Your task to perform on an android device: Search for lg ultragear on ebay.com, select the first entry, add it to the cart, then select checkout. Image 0: 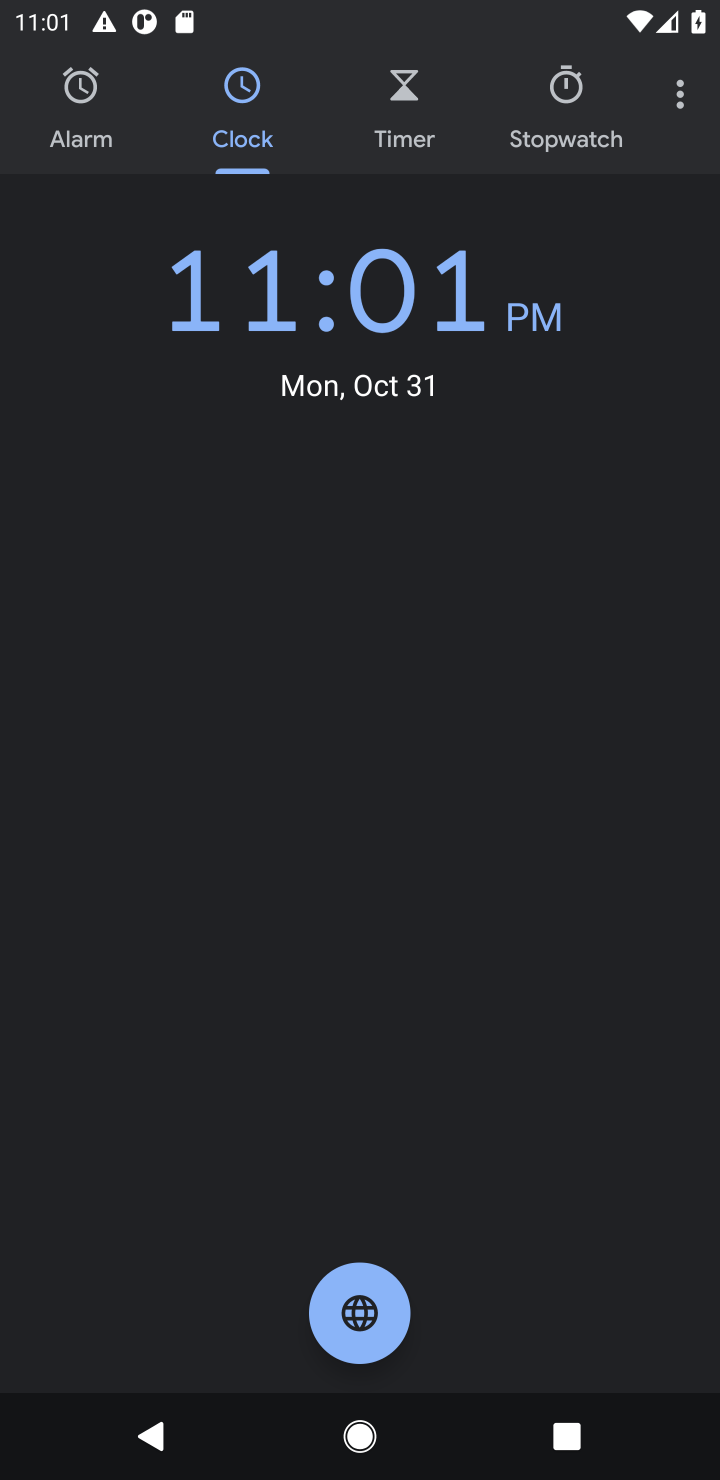
Step 0: press home button
Your task to perform on an android device: Search for lg ultragear on ebay.com, select the first entry, add it to the cart, then select checkout. Image 1: 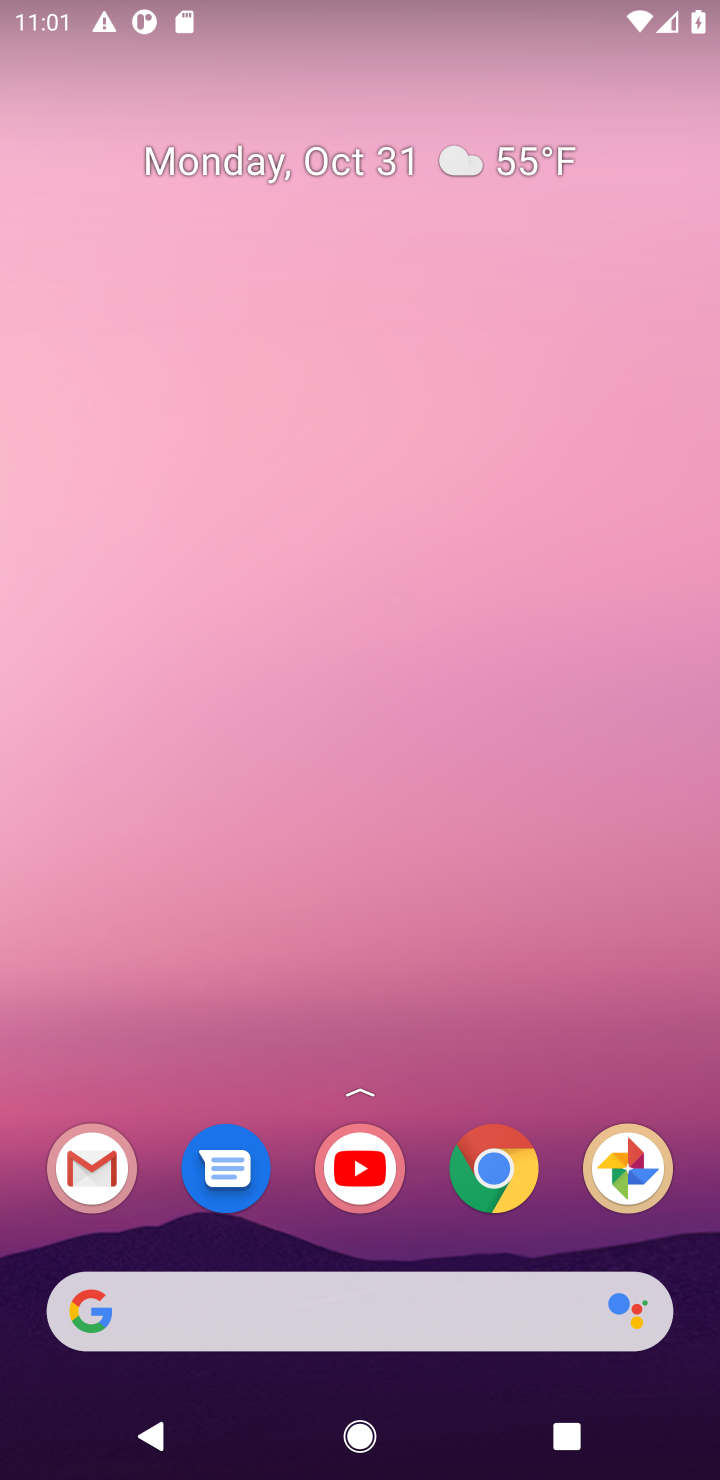
Step 1: click (492, 1190)
Your task to perform on an android device: Search for lg ultragear on ebay.com, select the first entry, add it to the cart, then select checkout. Image 2: 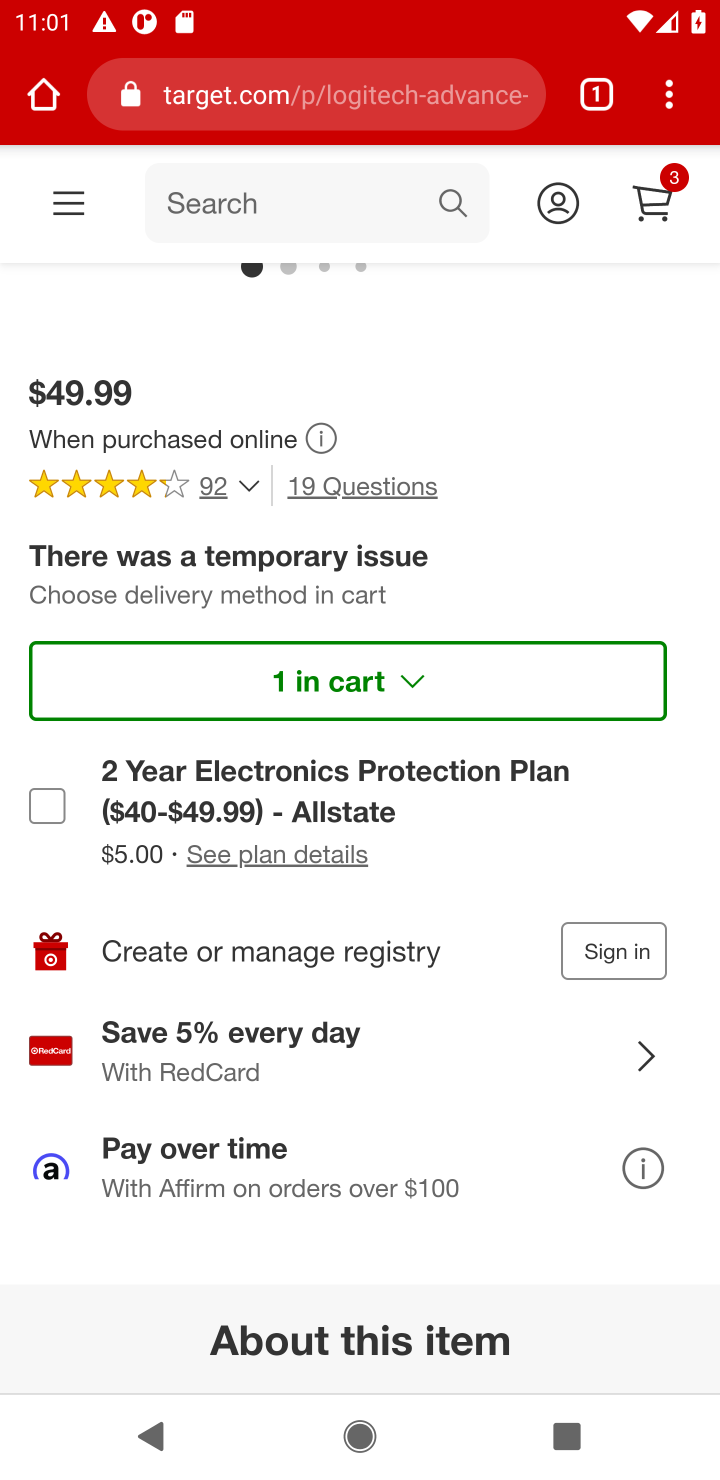
Step 2: click (248, 108)
Your task to perform on an android device: Search for lg ultragear on ebay.com, select the first entry, add it to the cart, then select checkout. Image 3: 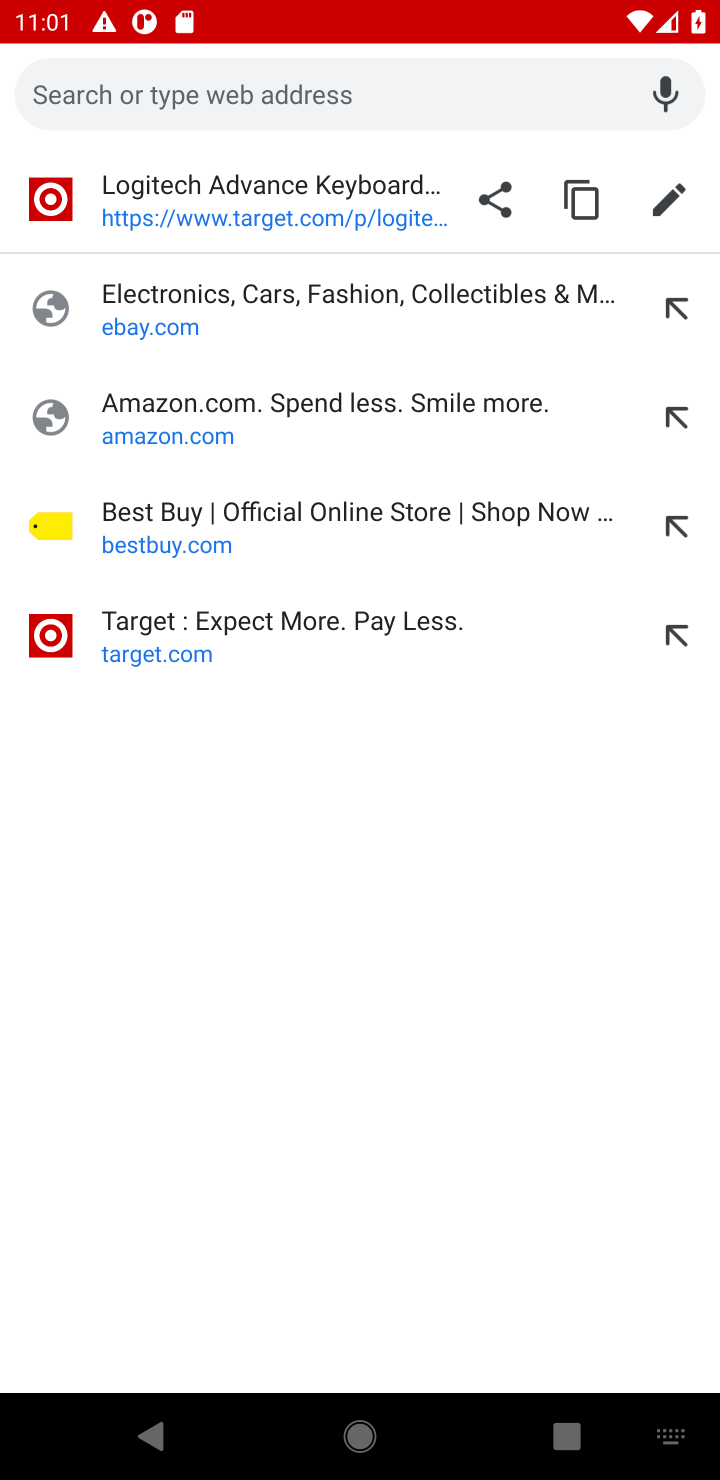
Step 3: type "ebay.com"
Your task to perform on an android device: Search for lg ultragear on ebay.com, select the first entry, add it to the cart, then select checkout. Image 4: 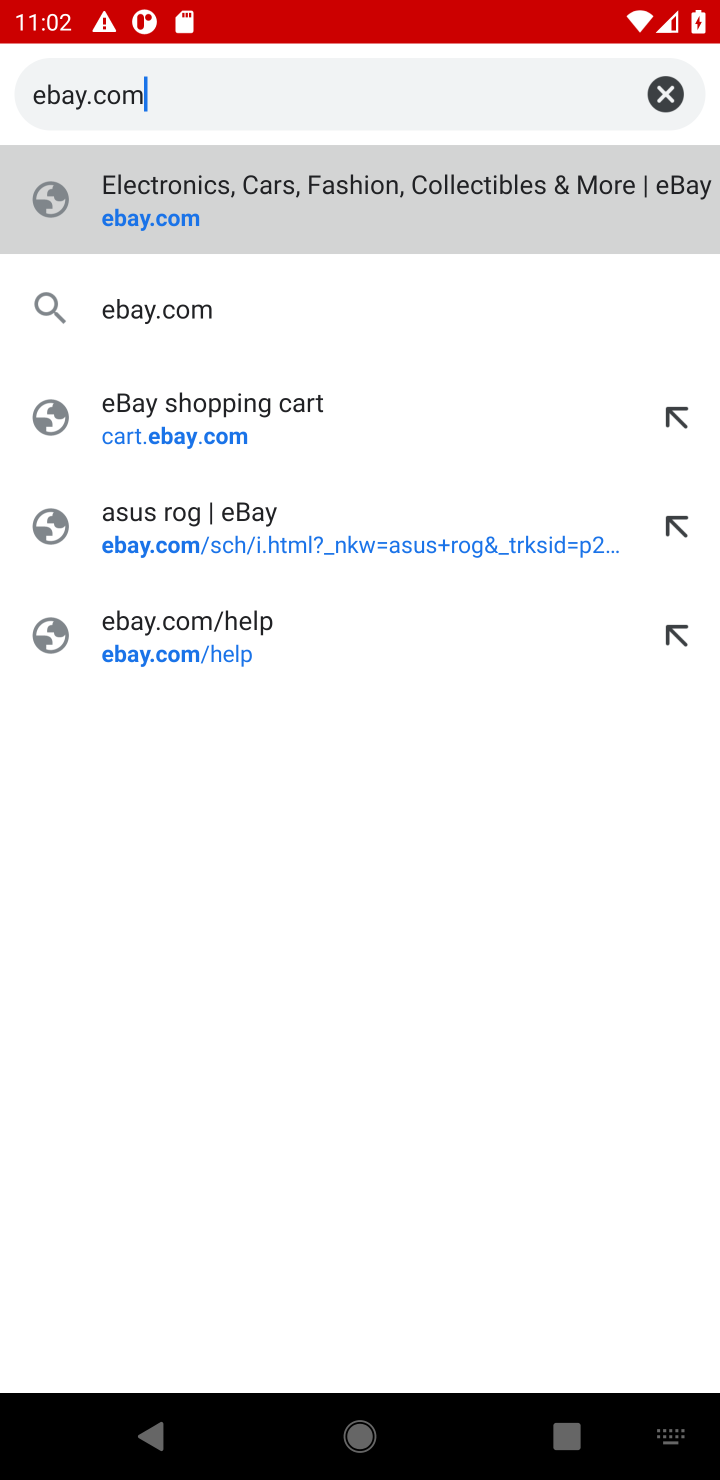
Step 4: click (369, 219)
Your task to perform on an android device: Search for lg ultragear on ebay.com, select the first entry, add it to the cart, then select checkout. Image 5: 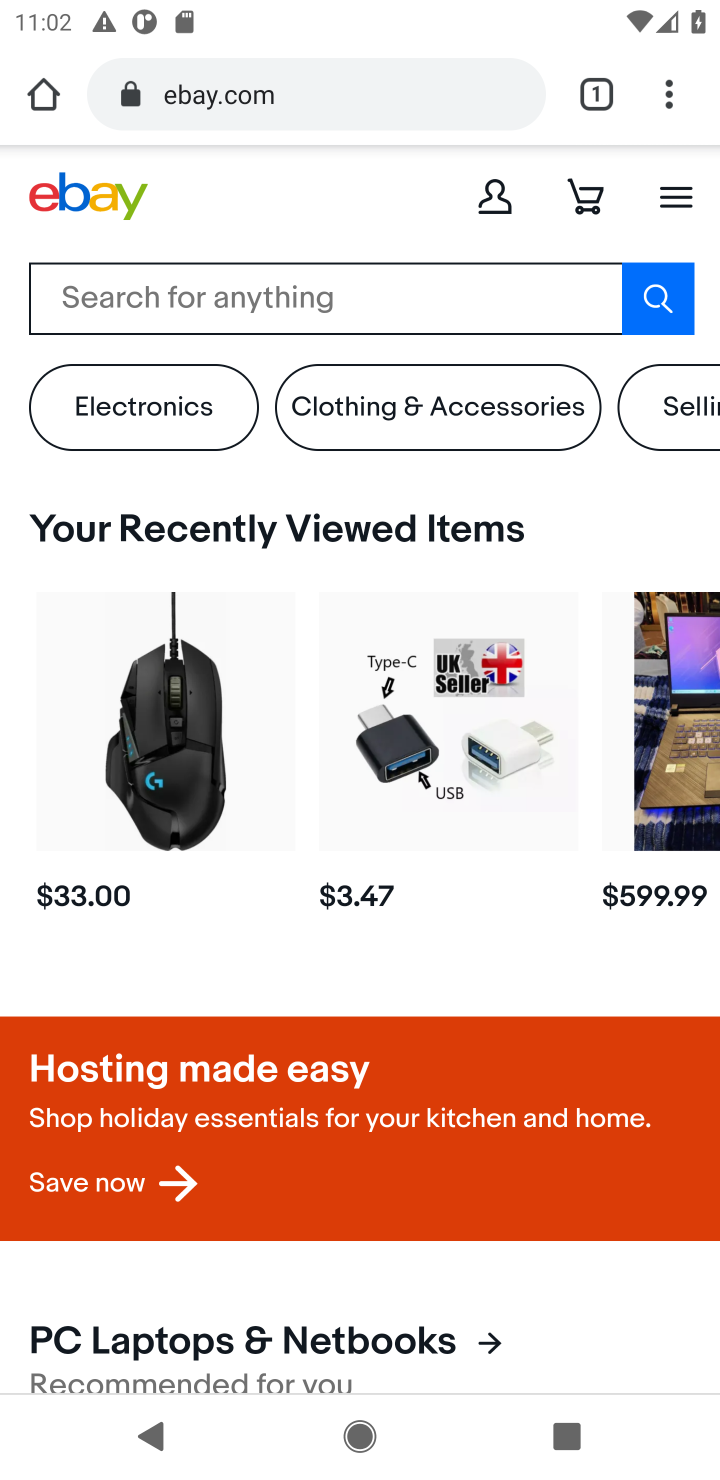
Step 5: drag from (376, 993) to (324, 1079)
Your task to perform on an android device: Search for lg ultragear on ebay.com, select the first entry, add it to the cart, then select checkout. Image 6: 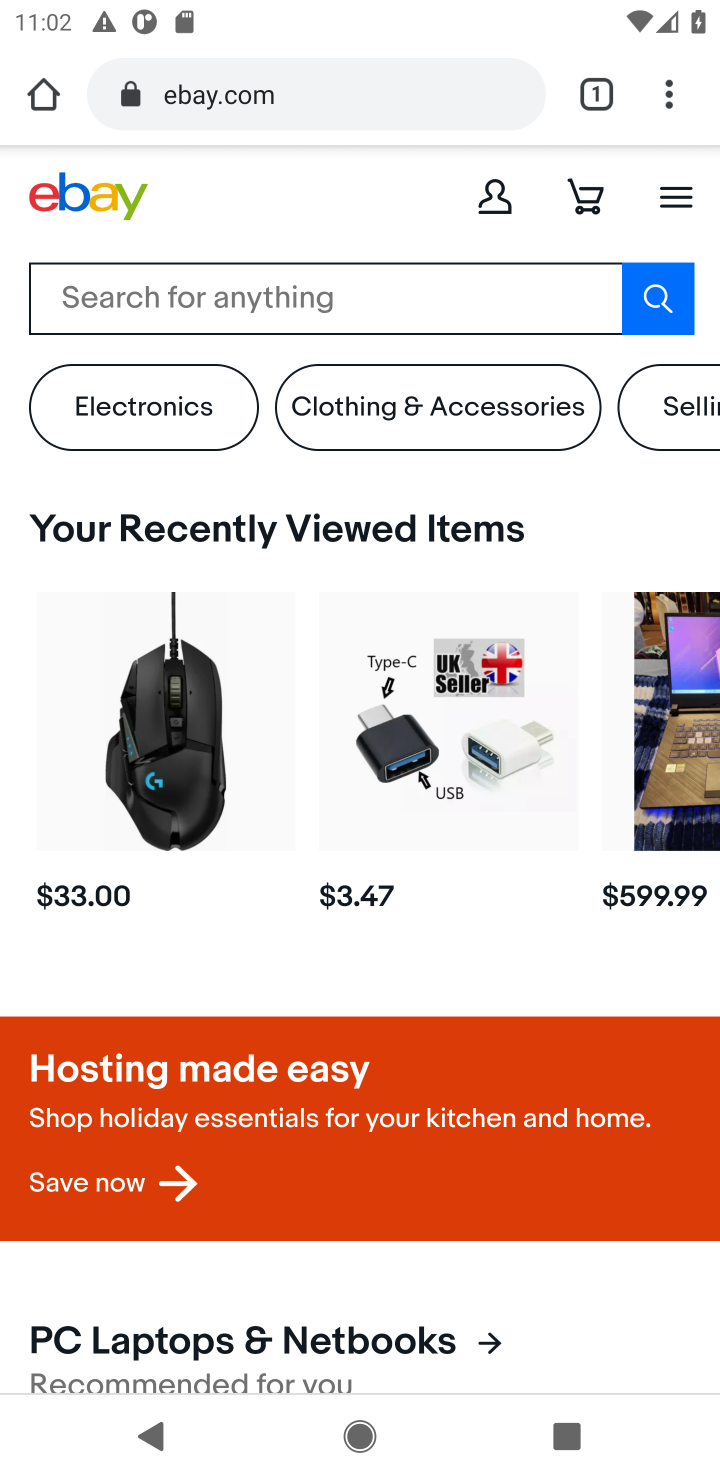
Step 6: click (281, 292)
Your task to perform on an android device: Search for lg ultragear on ebay.com, select the first entry, add it to the cart, then select checkout. Image 7: 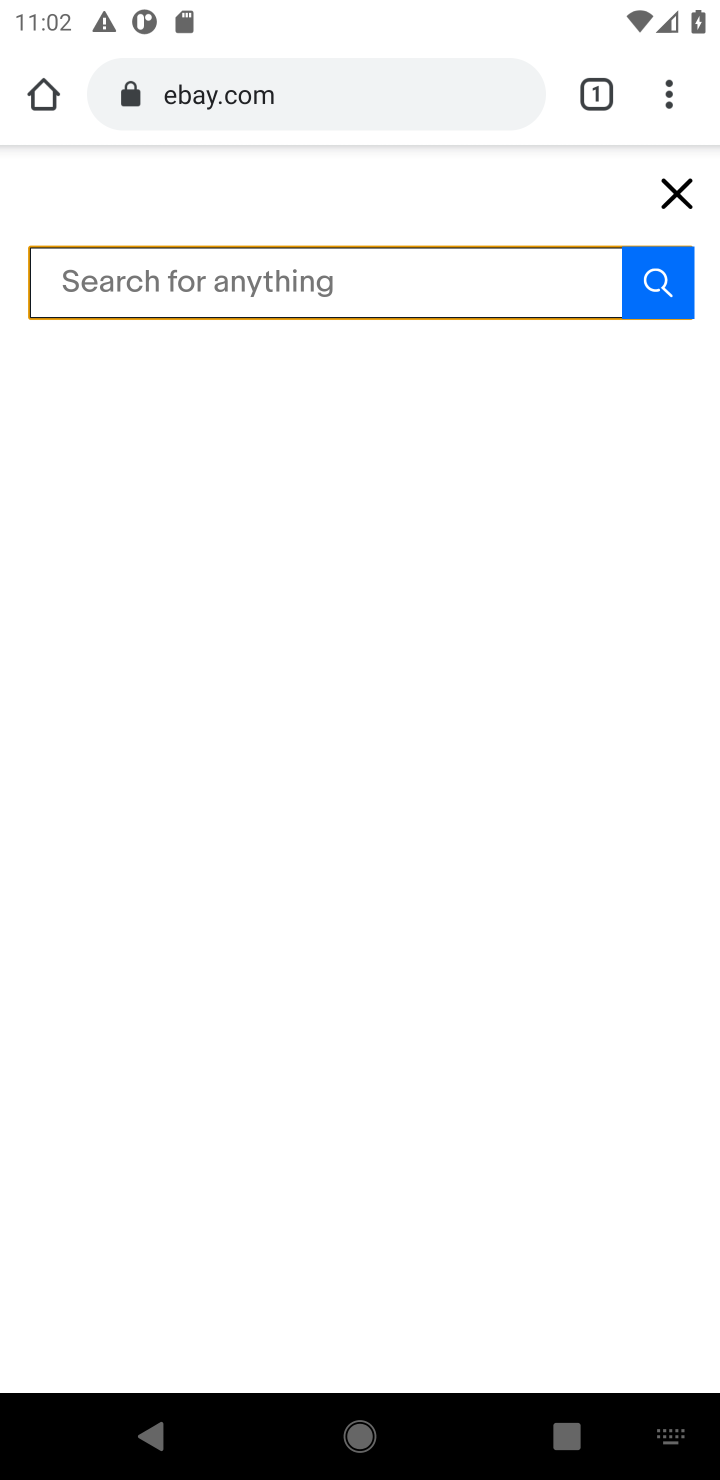
Step 7: type "lg ultragear"
Your task to perform on an android device: Search for lg ultragear on ebay.com, select the first entry, add it to the cart, then select checkout. Image 8: 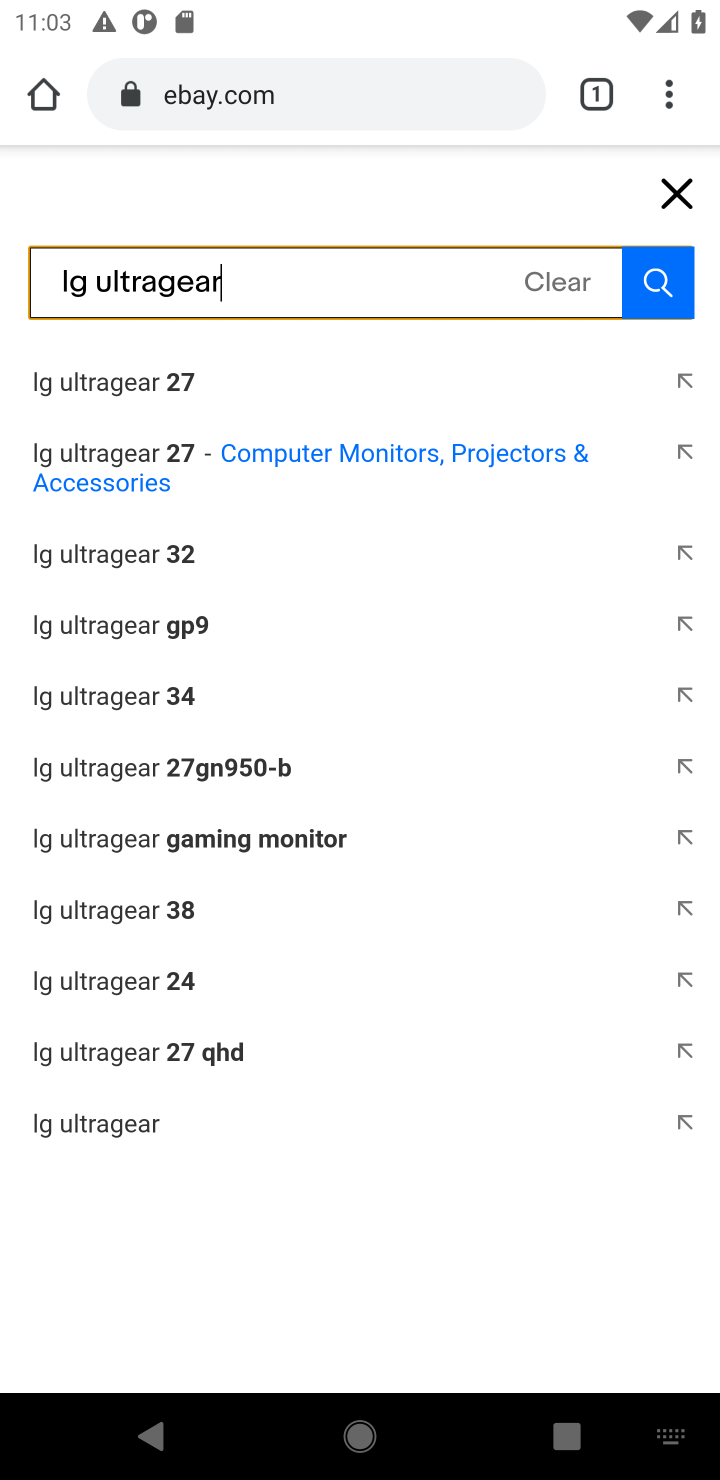
Step 8: click (658, 277)
Your task to perform on an android device: Search for lg ultragear on ebay.com, select the first entry, add it to the cart, then select checkout. Image 9: 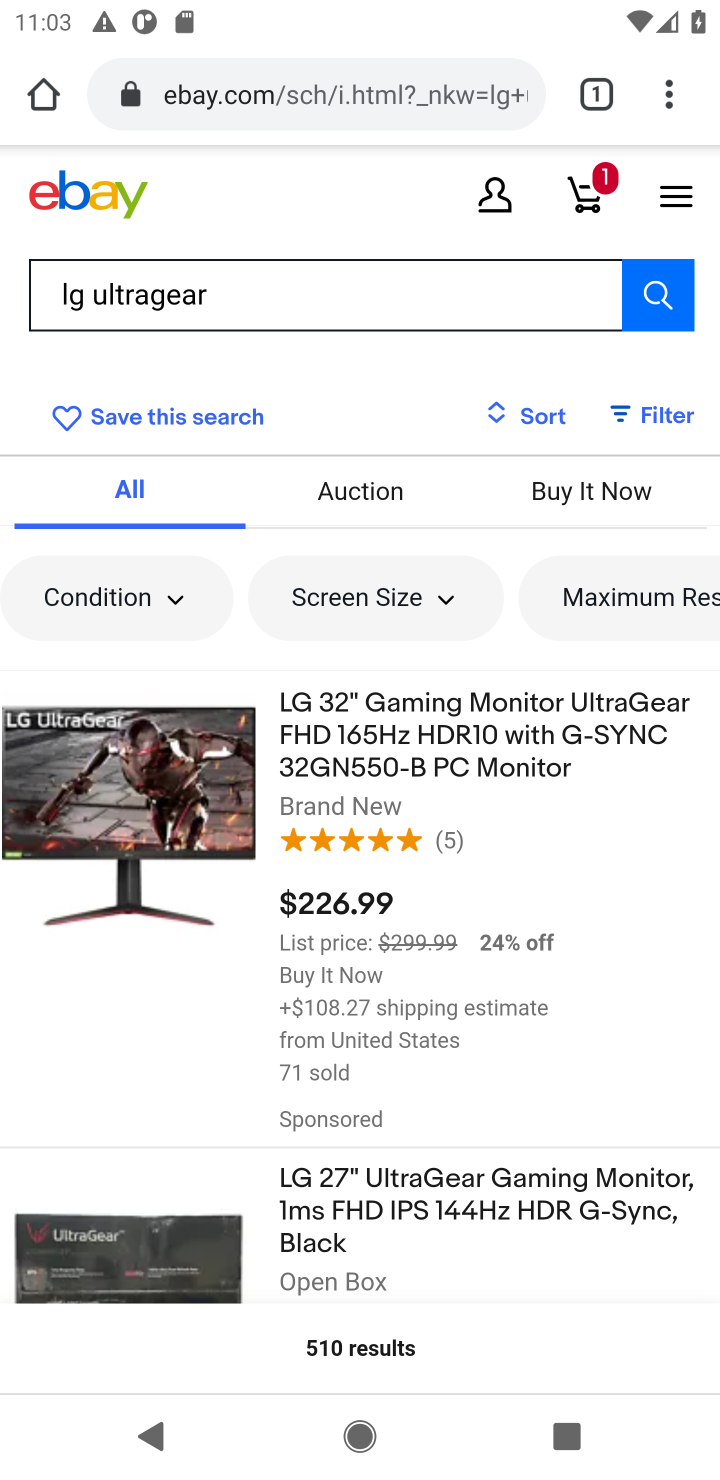
Step 9: click (515, 728)
Your task to perform on an android device: Search for lg ultragear on ebay.com, select the first entry, add it to the cart, then select checkout. Image 10: 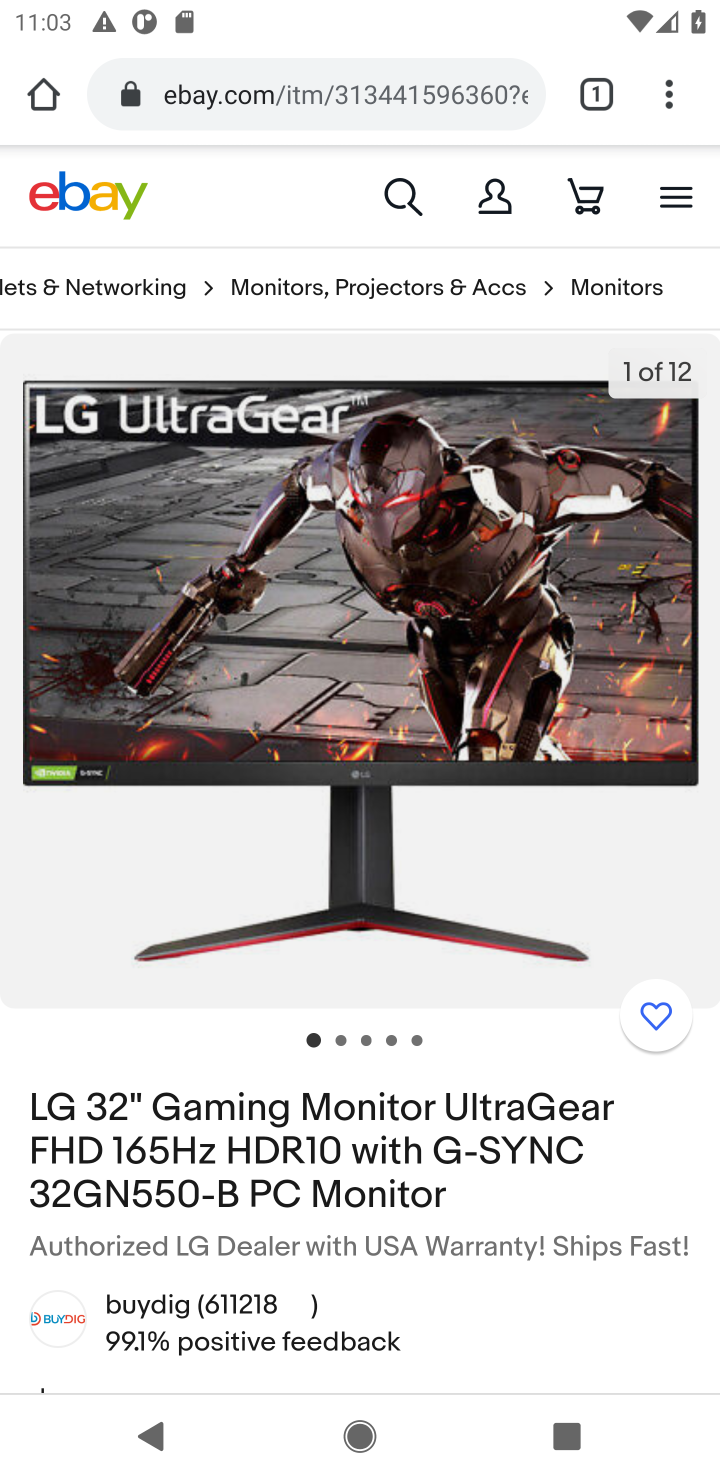
Step 10: drag from (601, 1203) to (438, 460)
Your task to perform on an android device: Search for lg ultragear on ebay.com, select the first entry, add it to the cart, then select checkout. Image 11: 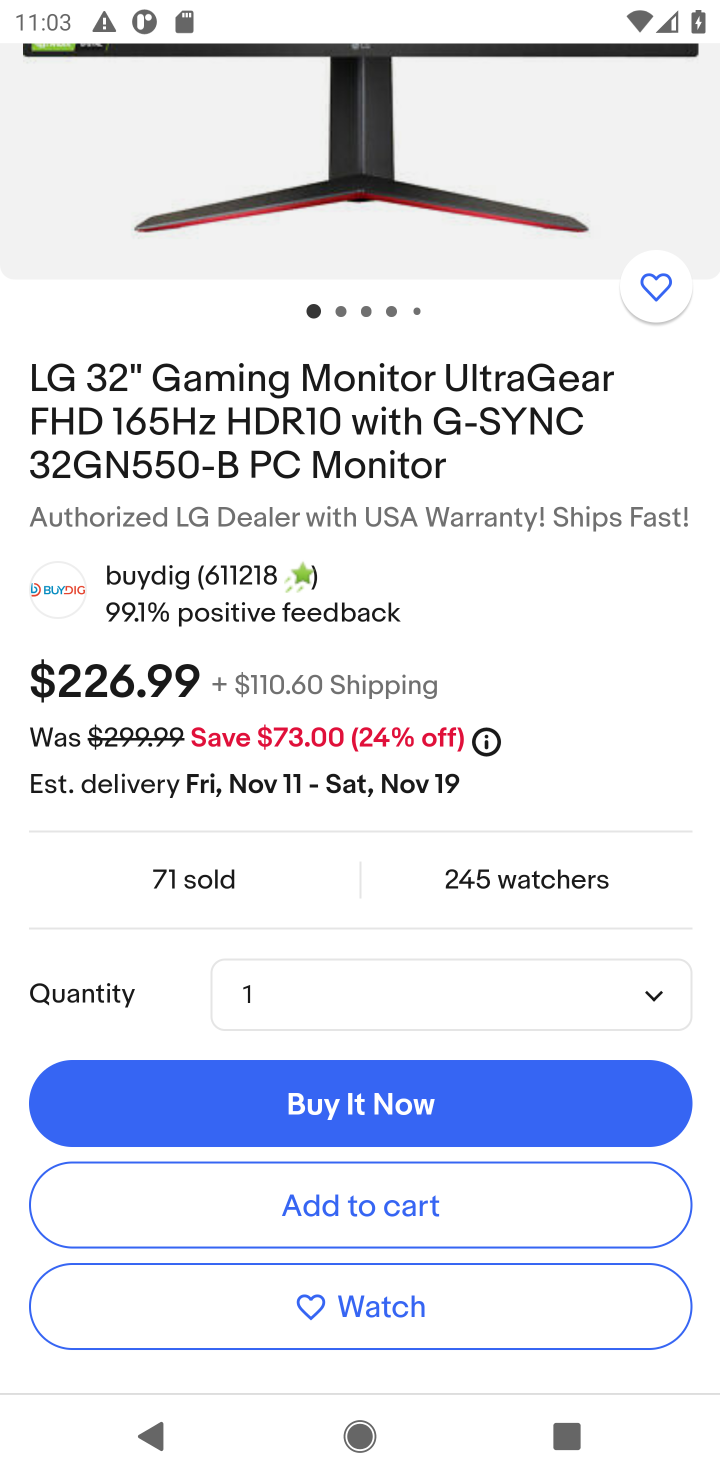
Step 11: click (544, 700)
Your task to perform on an android device: Search for lg ultragear on ebay.com, select the first entry, add it to the cart, then select checkout. Image 12: 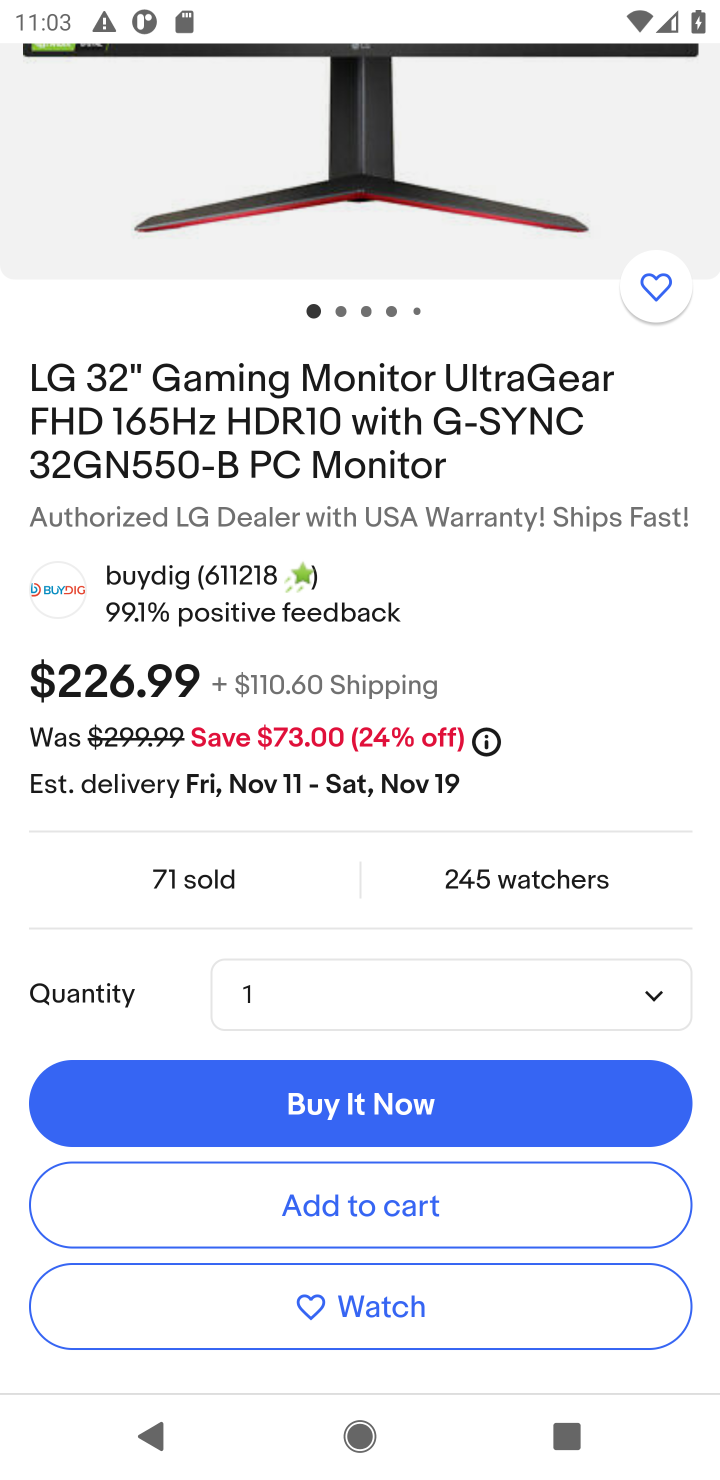
Step 12: click (303, 1222)
Your task to perform on an android device: Search for lg ultragear on ebay.com, select the first entry, add it to the cart, then select checkout. Image 13: 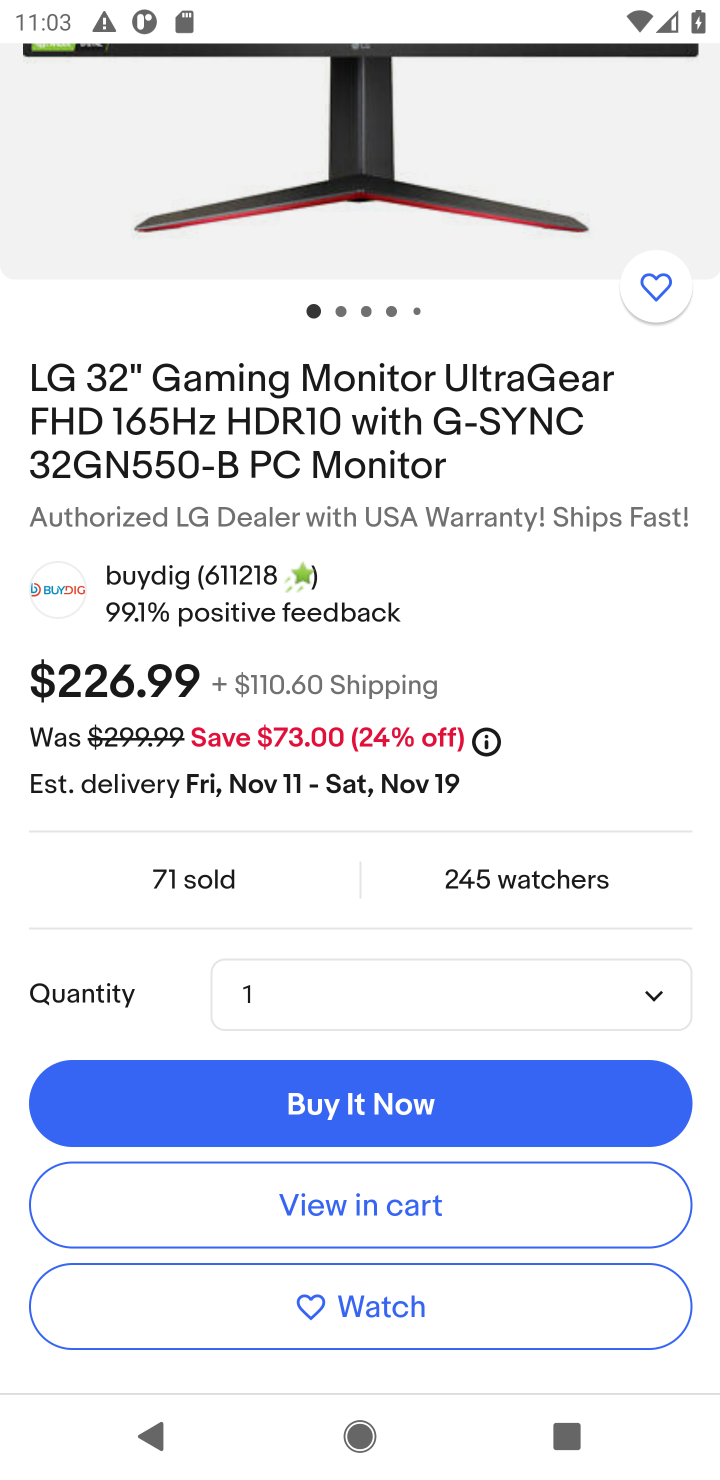
Step 13: click (361, 1204)
Your task to perform on an android device: Search for lg ultragear on ebay.com, select the first entry, add it to the cart, then select checkout. Image 14: 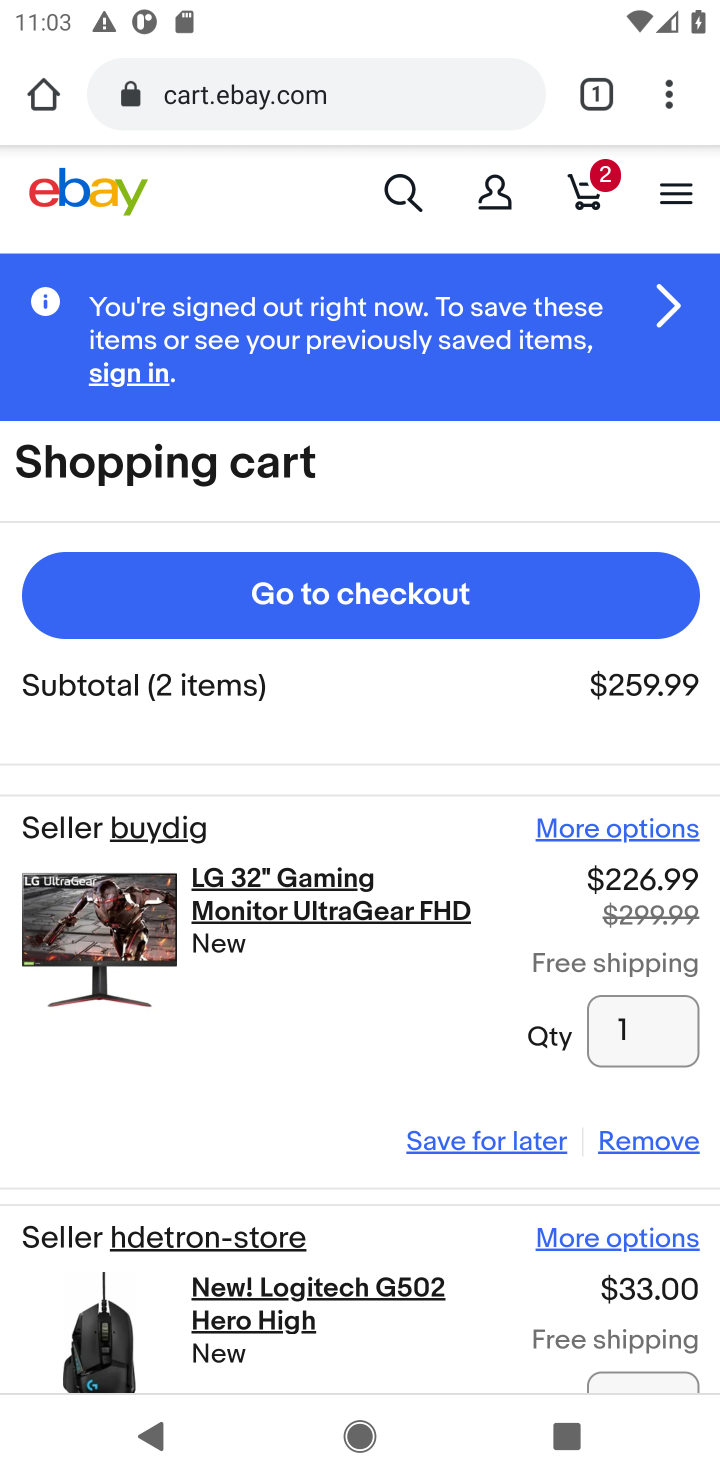
Step 14: click (514, 597)
Your task to perform on an android device: Search for lg ultragear on ebay.com, select the first entry, add it to the cart, then select checkout. Image 15: 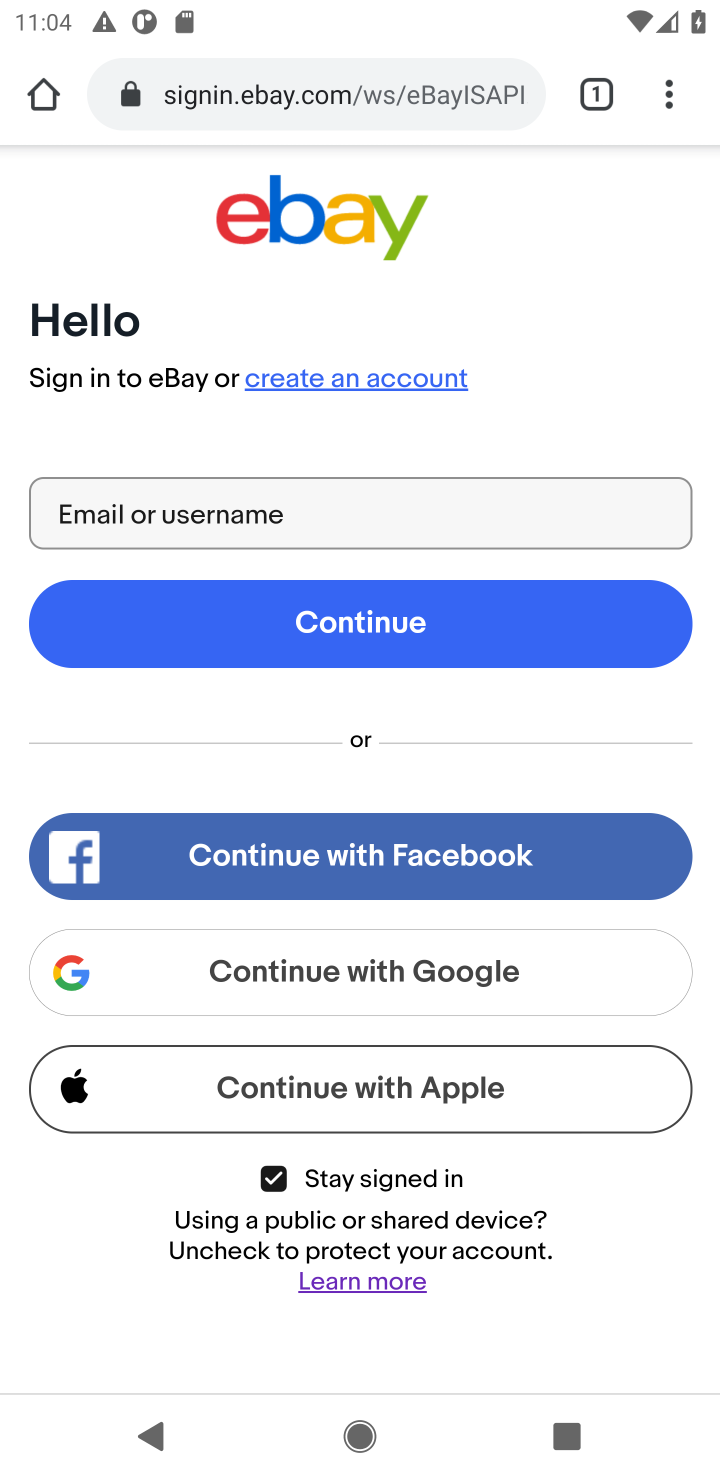
Step 15: task complete